Your task to perform on an android device: Open Youtube and go to the subscriptions tab Image 0: 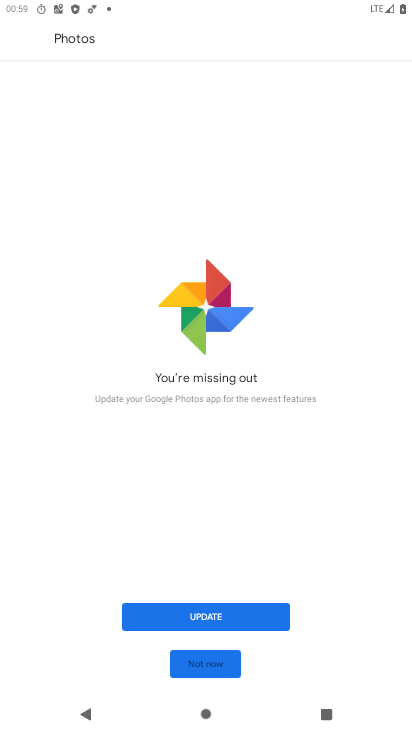
Step 0: press home button
Your task to perform on an android device: Open Youtube and go to the subscriptions tab Image 1: 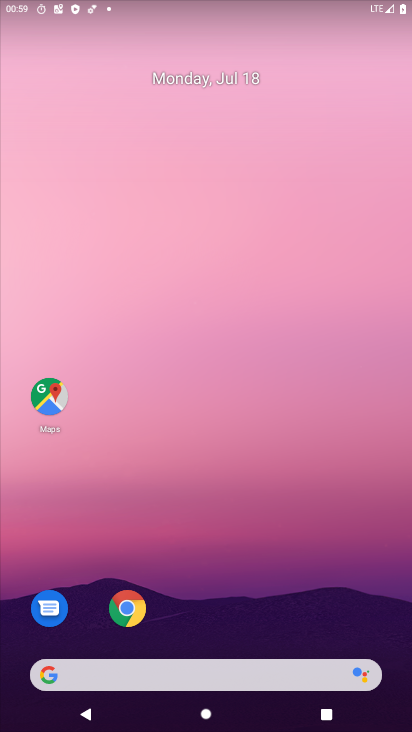
Step 1: drag from (293, 636) to (245, 74)
Your task to perform on an android device: Open Youtube and go to the subscriptions tab Image 2: 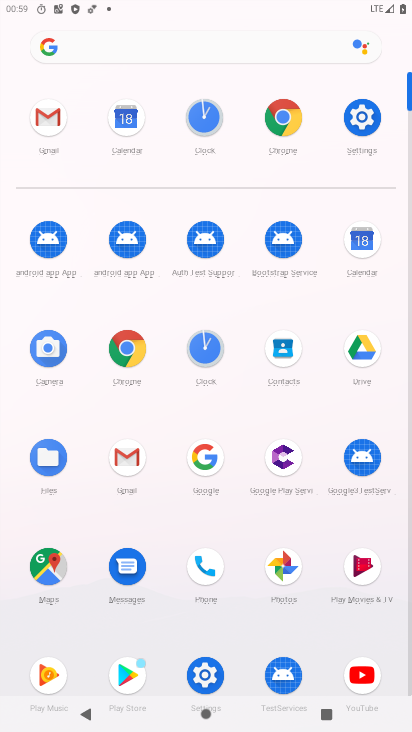
Step 2: click (360, 676)
Your task to perform on an android device: Open Youtube and go to the subscriptions tab Image 3: 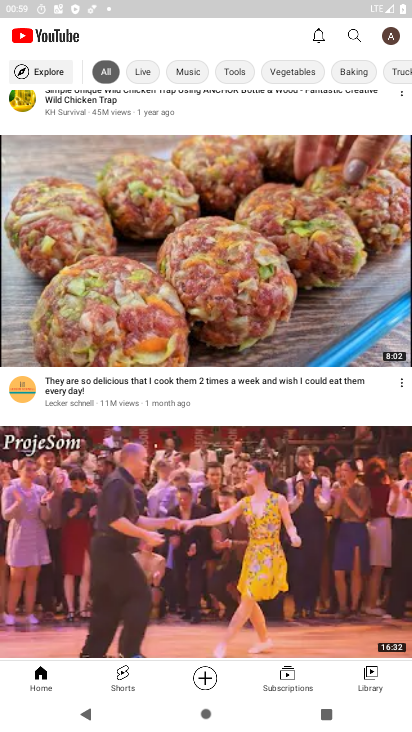
Step 3: click (283, 682)
Your task to perform on an android device: Open Youtube and go to the subscriptions tab Image 4: 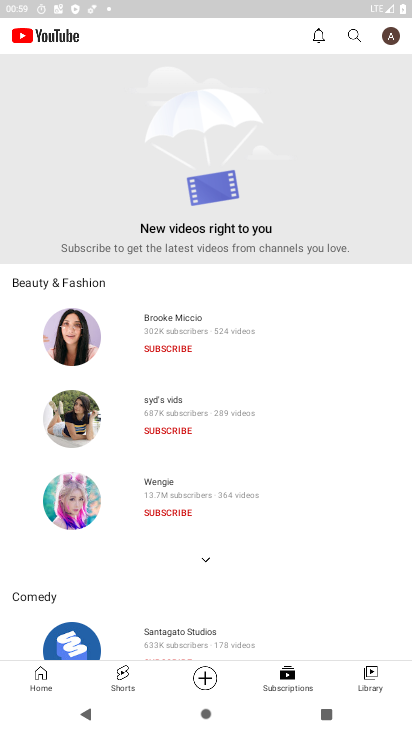
Step 4: task complete